Your task to perform on an android device: Turn off the flashlight Image 0: 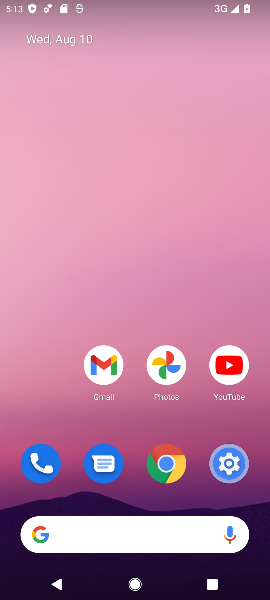
Step 0: click (230, 466)
Your task to perform on an android device: Turn off the flashlight Image 1: 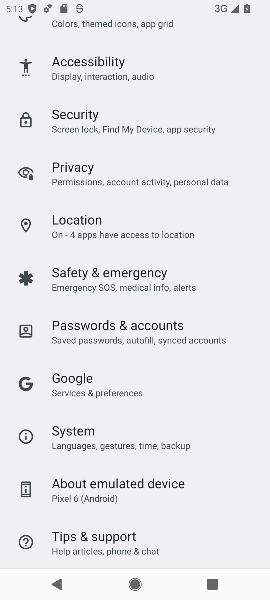
Step 1: drag from (147, 96) to (113, 560)
Your task to perform on an android device: Turn off the flashlight Image 2: 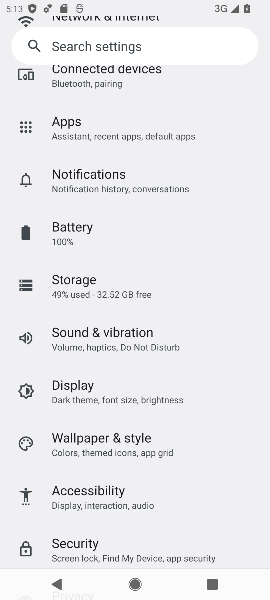
Step 2: click (187, 200)
Your task to perform on an android device: Turn off the flashlight Image 3: 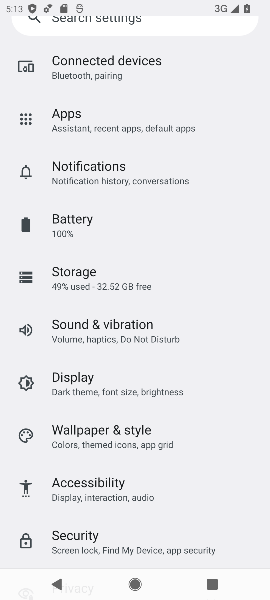
Step 3: click (65, 374)
Your task to perform on an android device: Turn off the flashlight Image 4: 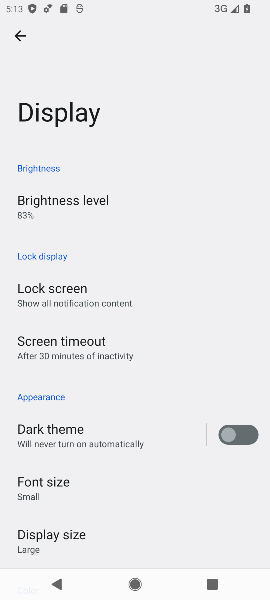
Step 4: task complete